Your task to perform on an android device: Search for Mexican restaurants on Maps Image 0: 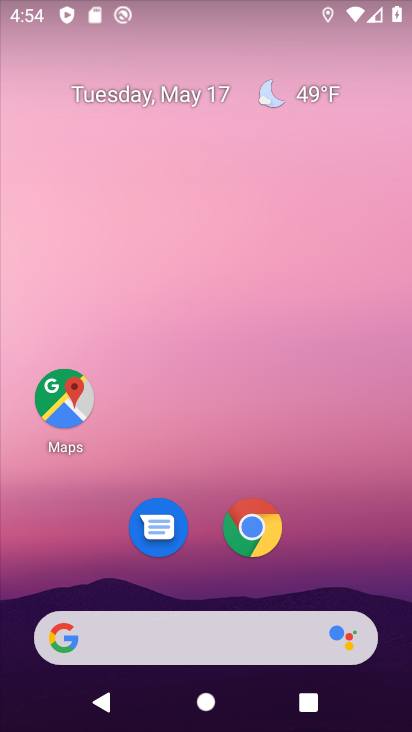
Step 0: drag from (330, 525) to (249, 0)
Your task to perform on an android device: Search for Mexican restaurants on Maps Image 1: 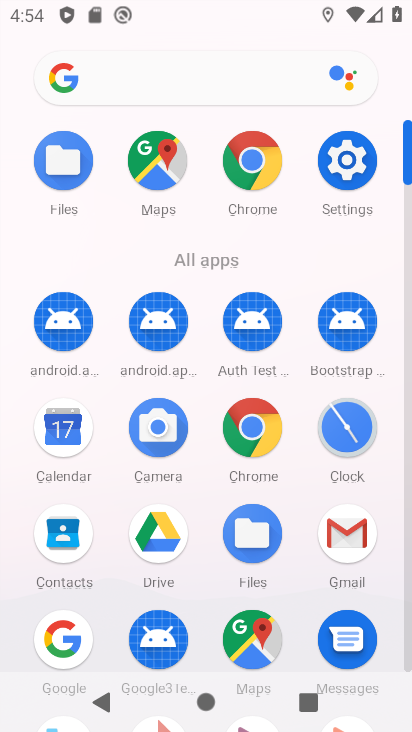
Step 1: drag from (19, 578) to (31, 228)
Your task to perform on an android device: Search for Mexican restaurants on Maps Image 2: 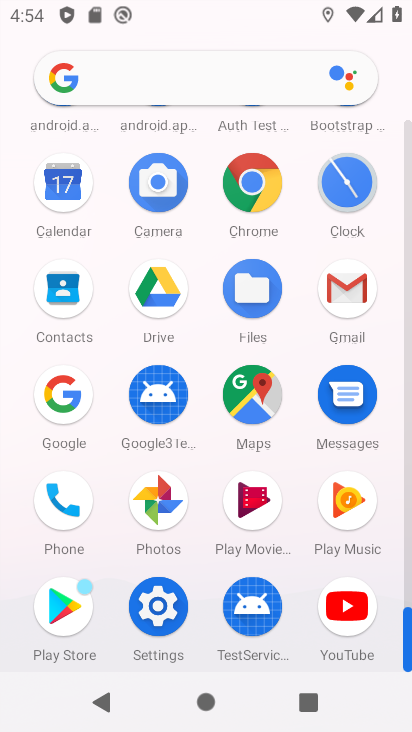
Step 2: drag from (20, 588) to (41, 200)
Your task to perform on an android device: Search for Mexican restaurants on Maps Image 3: 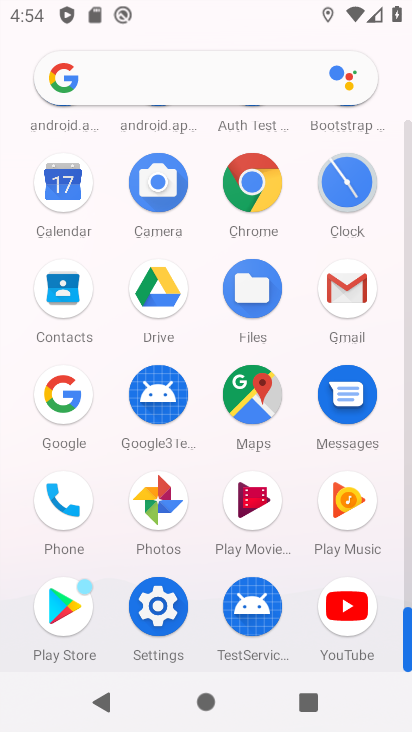
Step 3: click (250, 387)
Your task to perform on an android device: Search for Mexican restaurants on Maps Image 4: 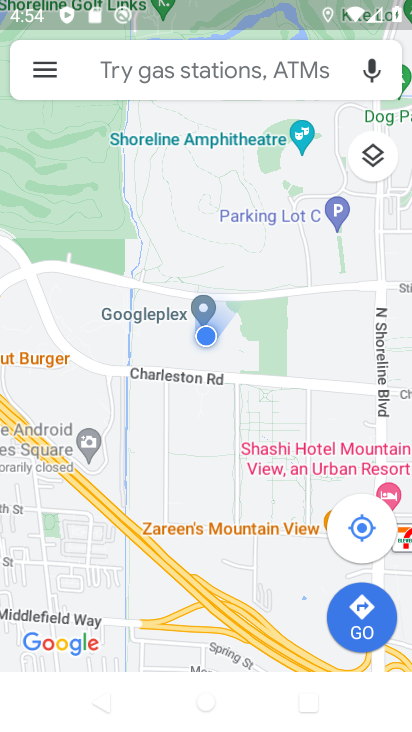
Step 4: click (223, 71)
Your task to perform on an android device: Search for Mexican restaurants on Maps Image 5: 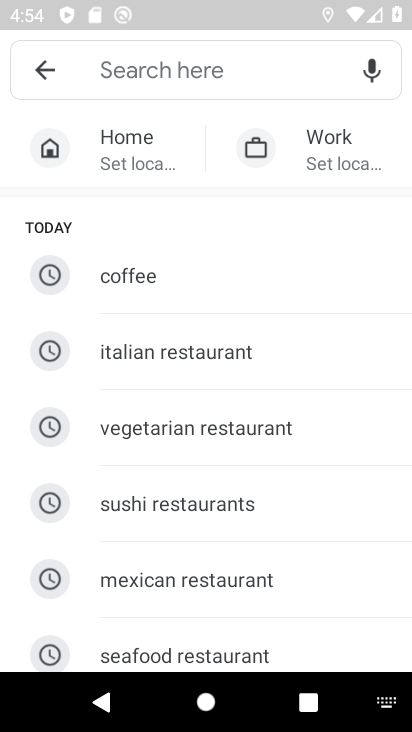
Step 5: click (259, 583)
Your task to perform on an android device: Search for Mexican restaurants on Maps Image 6: 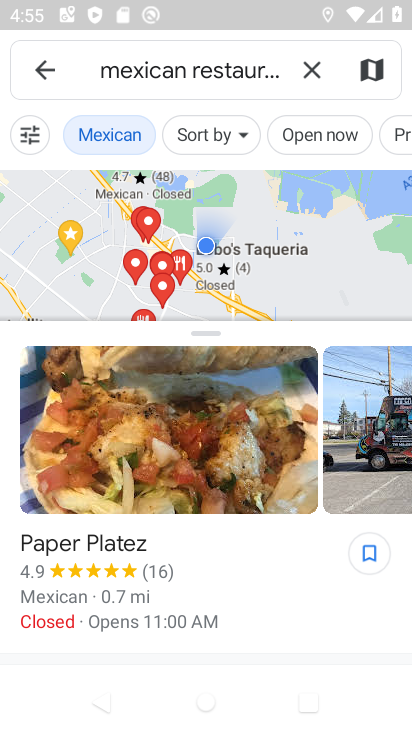
Step 6: task complete